Your task to perform on an android device: clear history in the chrome app Image 0: 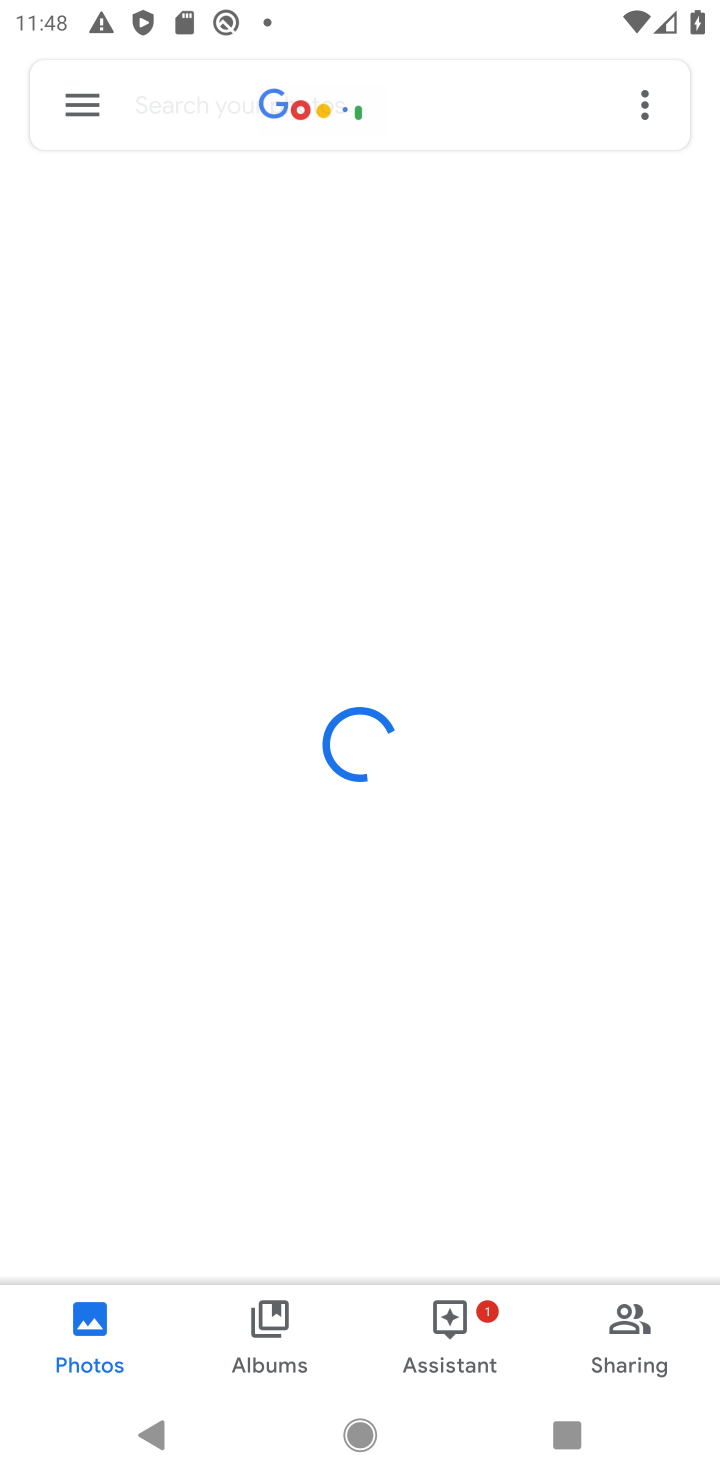
Step 0: press home button
Your task to perform on an android device: clear history in the chrome app Image 1: 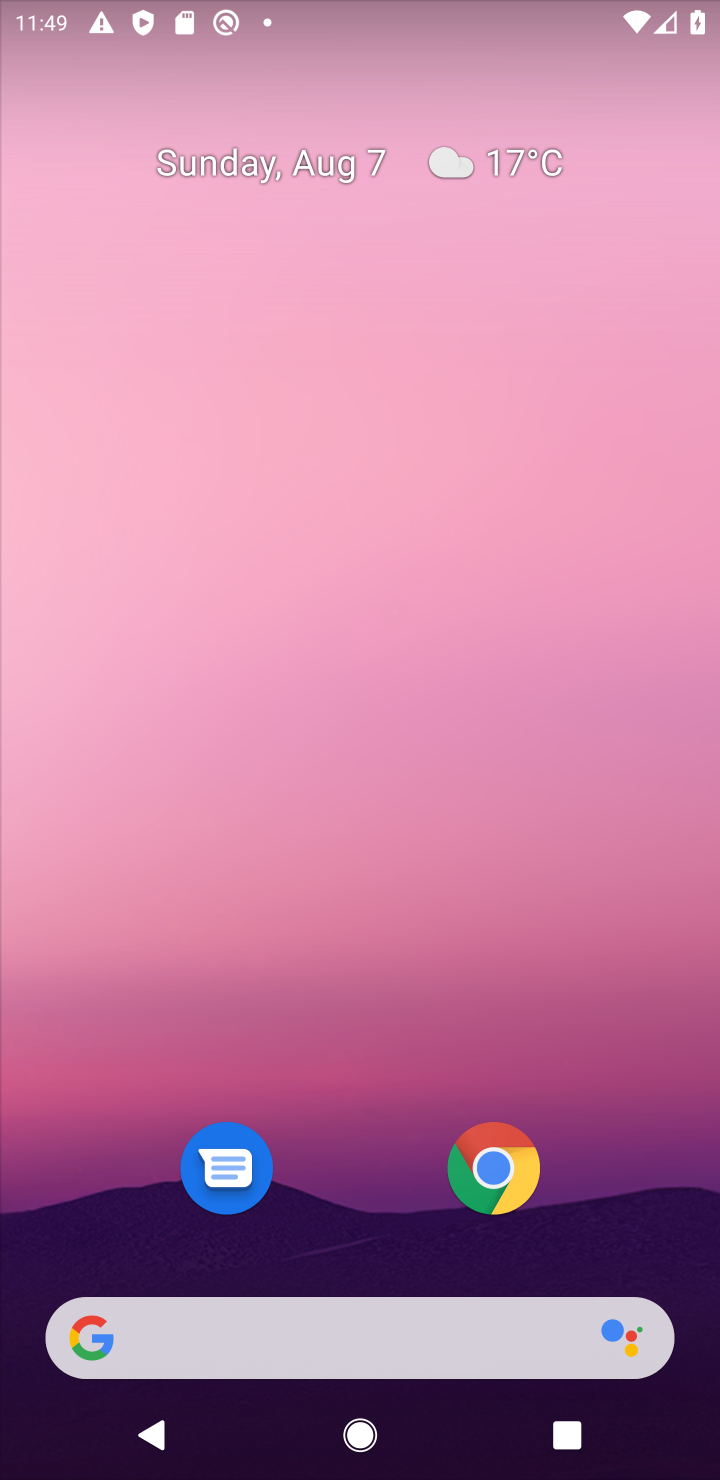
Step 1: click (507, 1189)
Your task to perform on an android device: clear history in the chrome app Image 2: 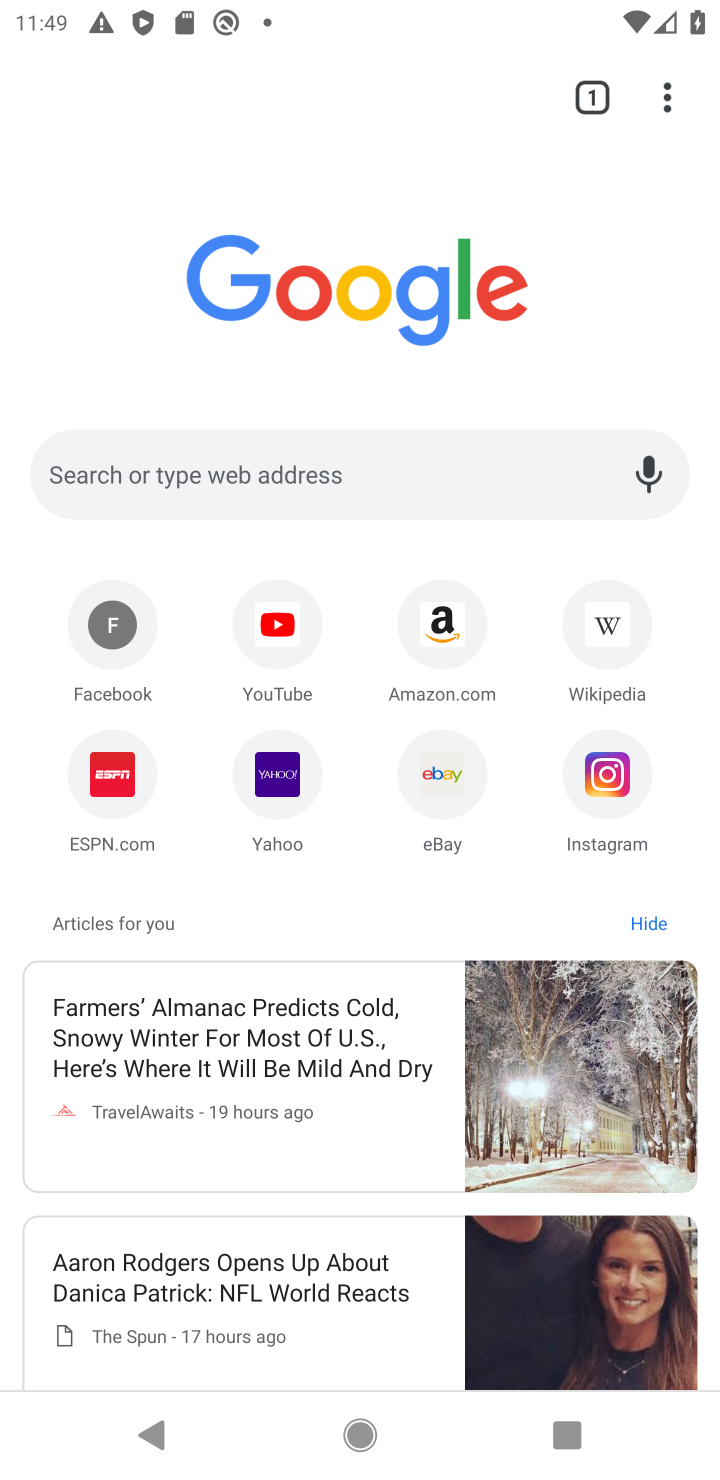
Step 2: click (653, 96)
Your task to perform on an android device: clear history in the chrome app Image 3: 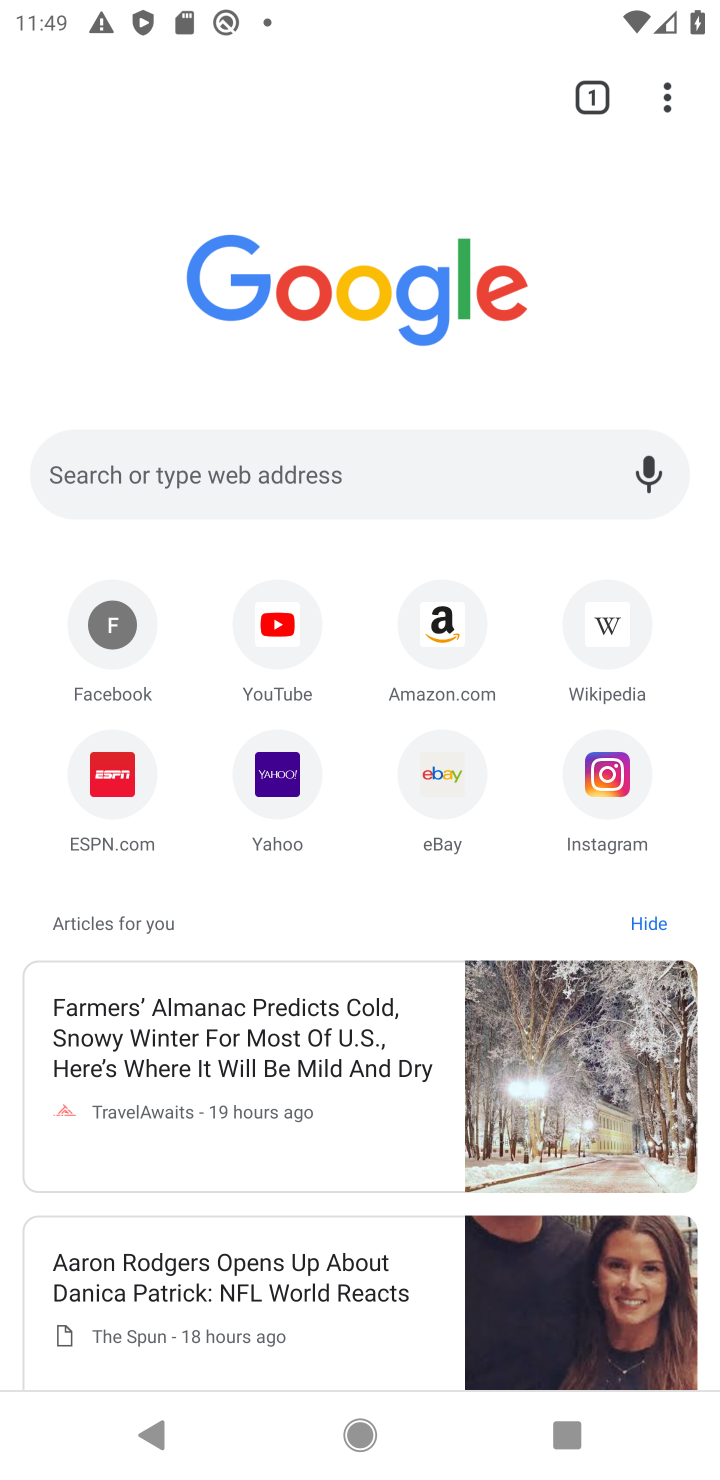
Step 3: click (675, 113)
Your task to perform on an android device: clear history in the chrome app Image 4: 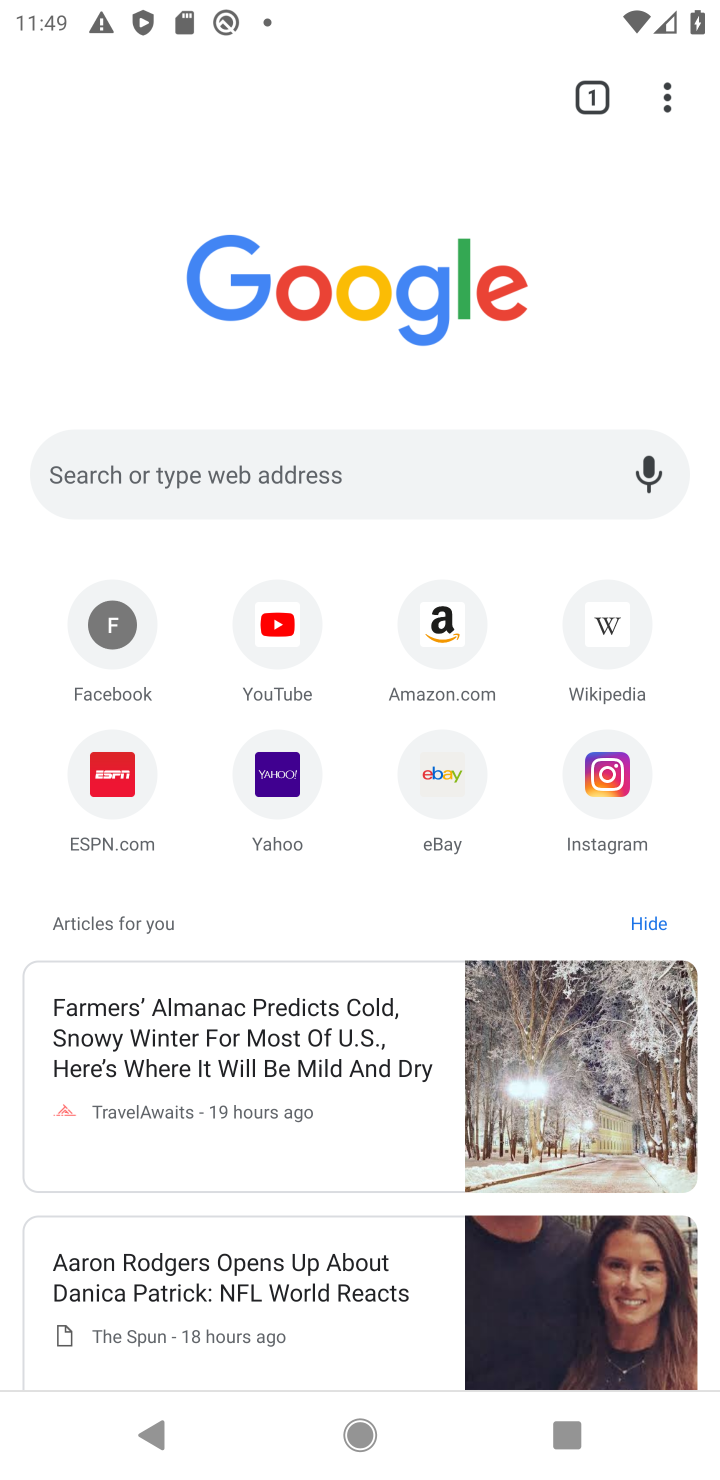
Step 4: click (664, 107)
Your task to perform on an android device: clear history in the chrome app Image 5: 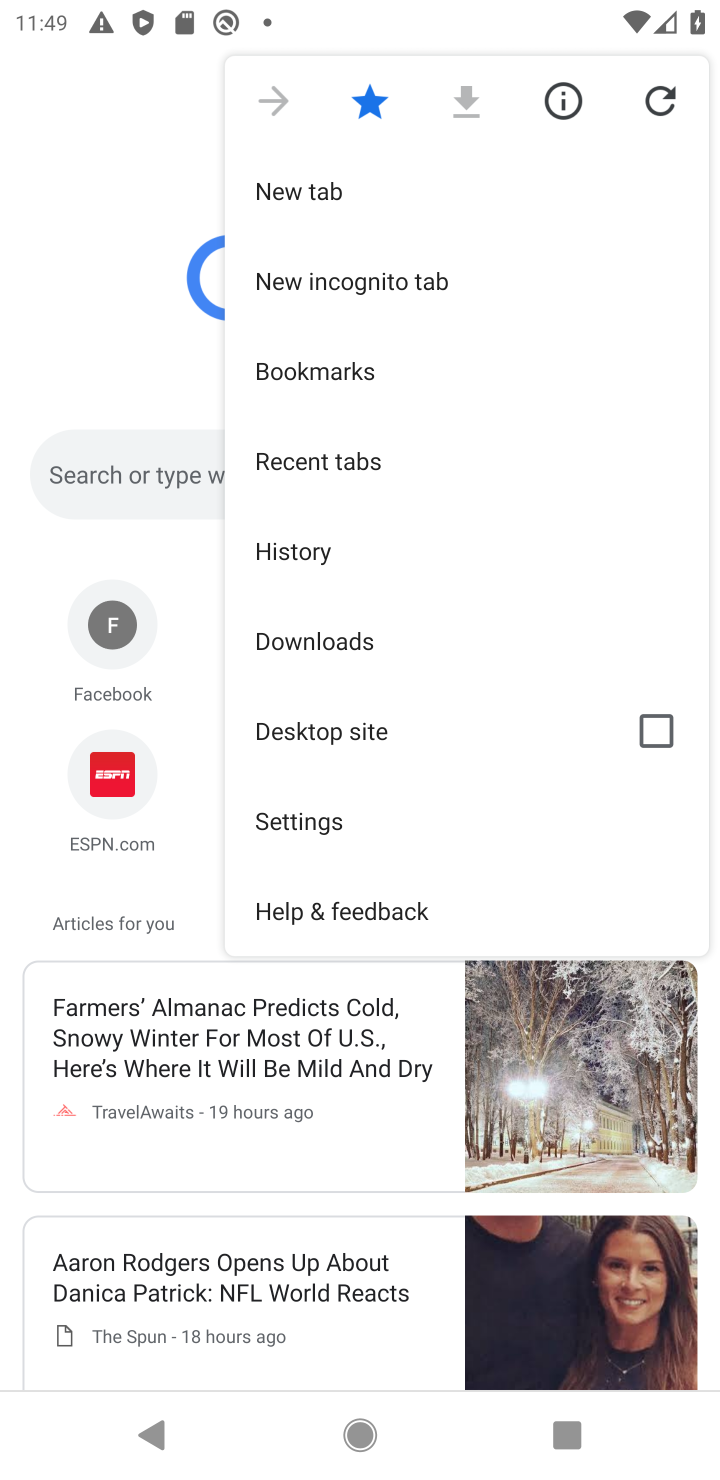
Step 5: click (329, 544)
Your task to perform on an android device: clear history in the chrome app Image 6: 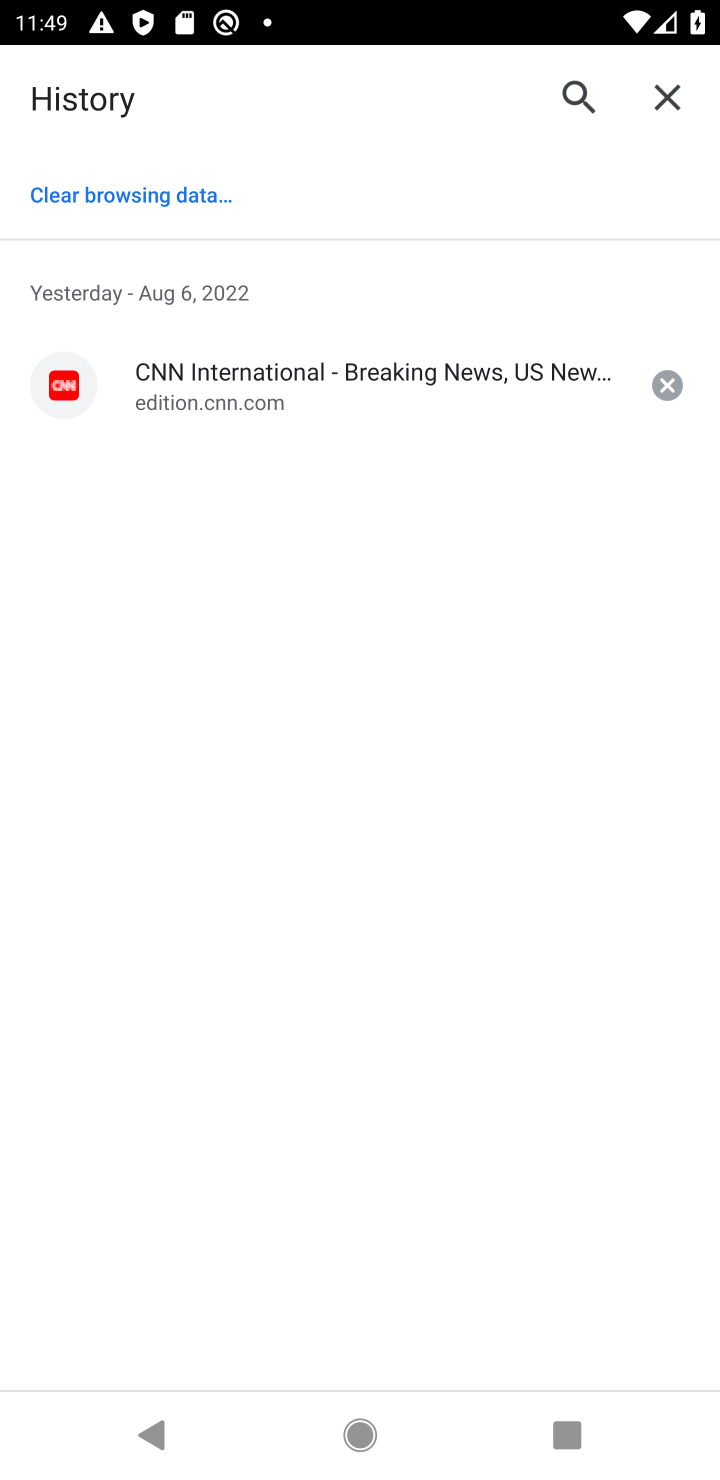
Step 6: click (168, 191)
Your task to perform on an android device: clear history in the chrome app Image 7: 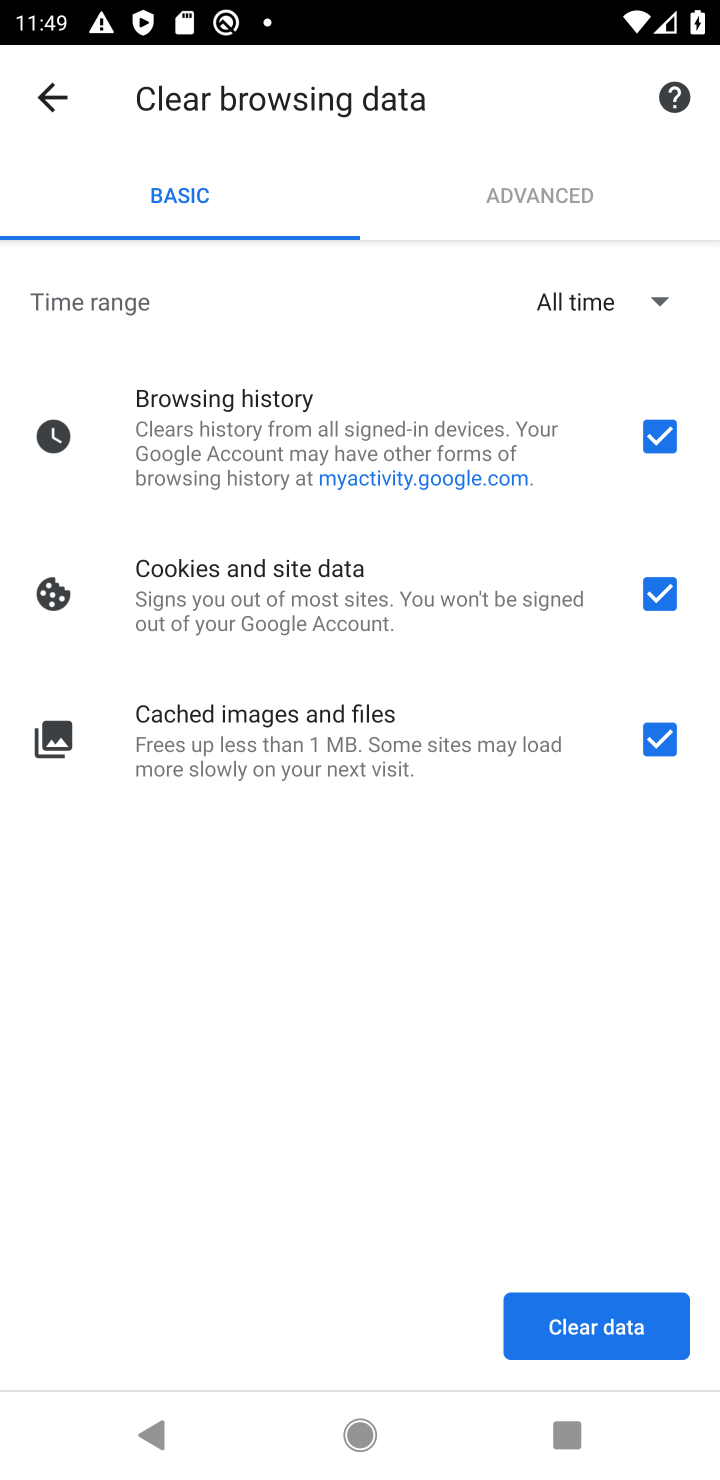
Step 7: click (607, 1316)
Your task to perform on an android device: clear history in the chrome app Image 8: 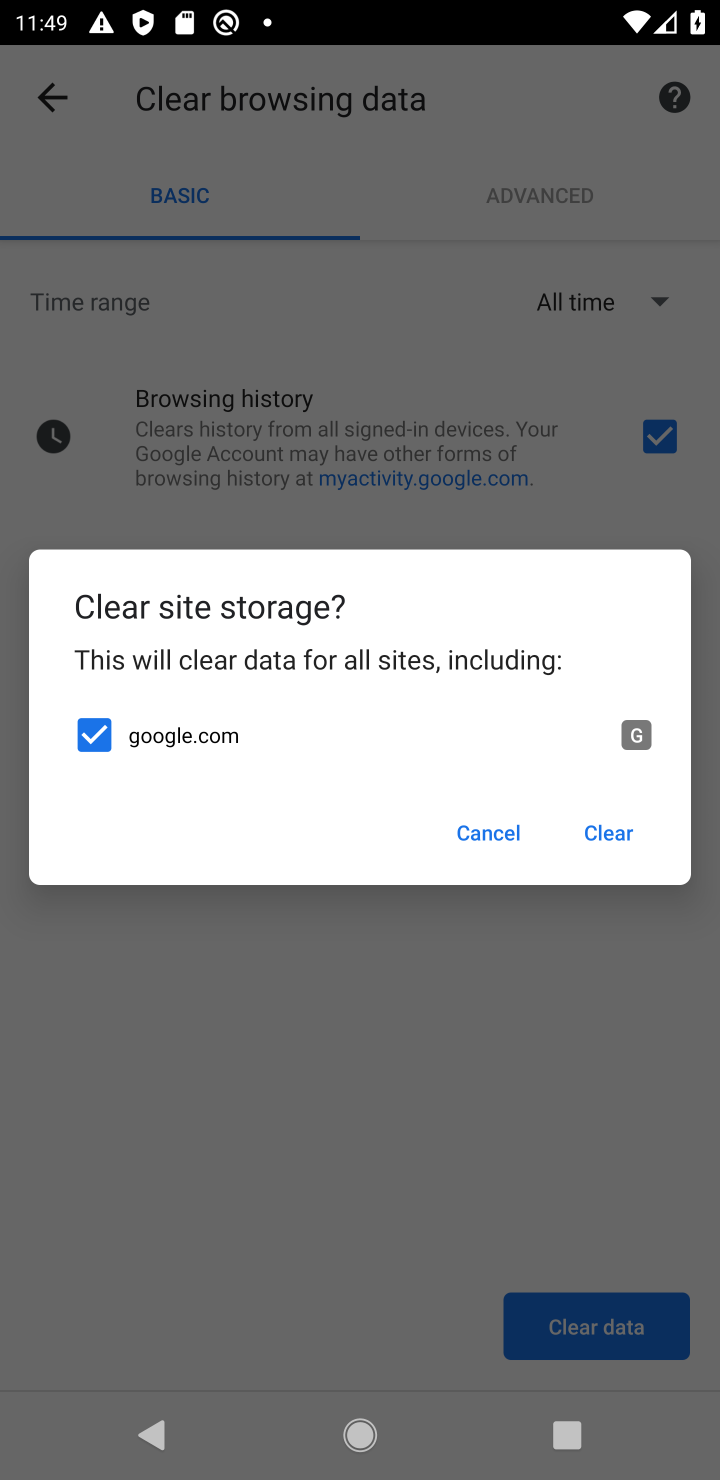
Step 8: click (623, 824)
Your task to perform on an android device: clear history in the chrome app Image 9: 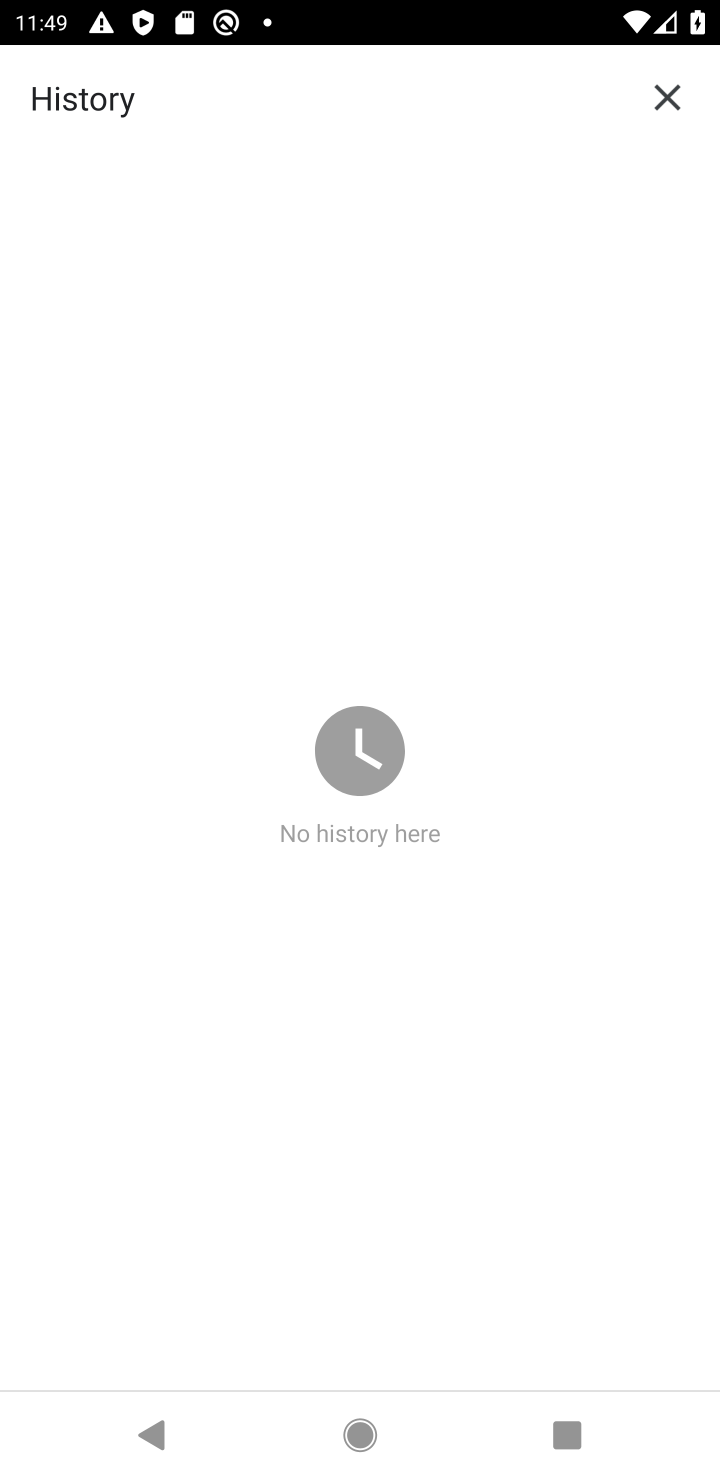
Step 9: task complete